Your task to perform on an android device: Open Google Maps and go to "Timeline" Image 0: 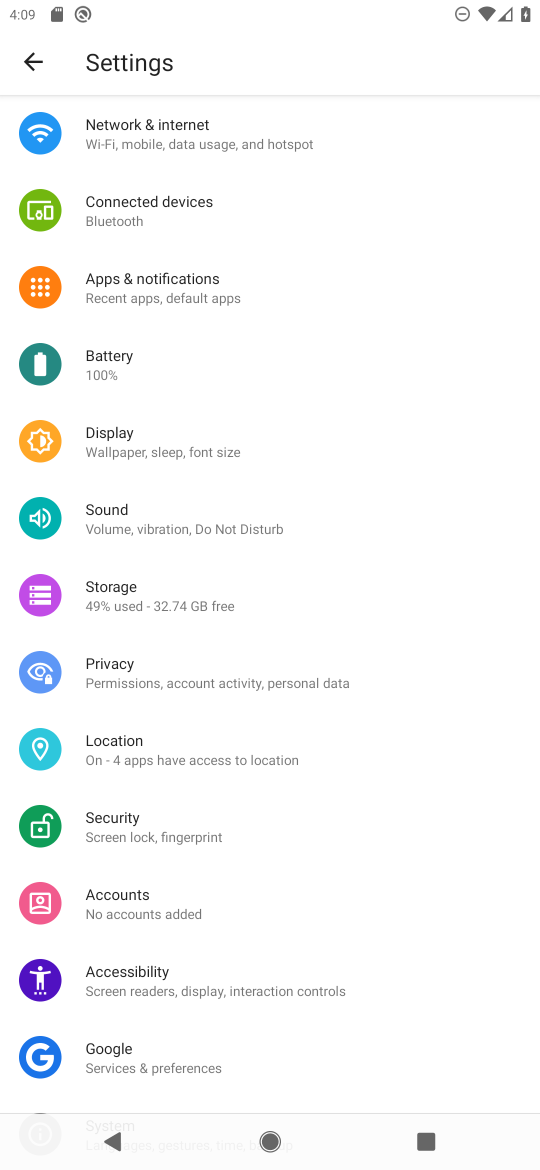
Step 0: press home button
Your task to perform on an android device: Open Google Maps and go to "Timeline" Image 1: 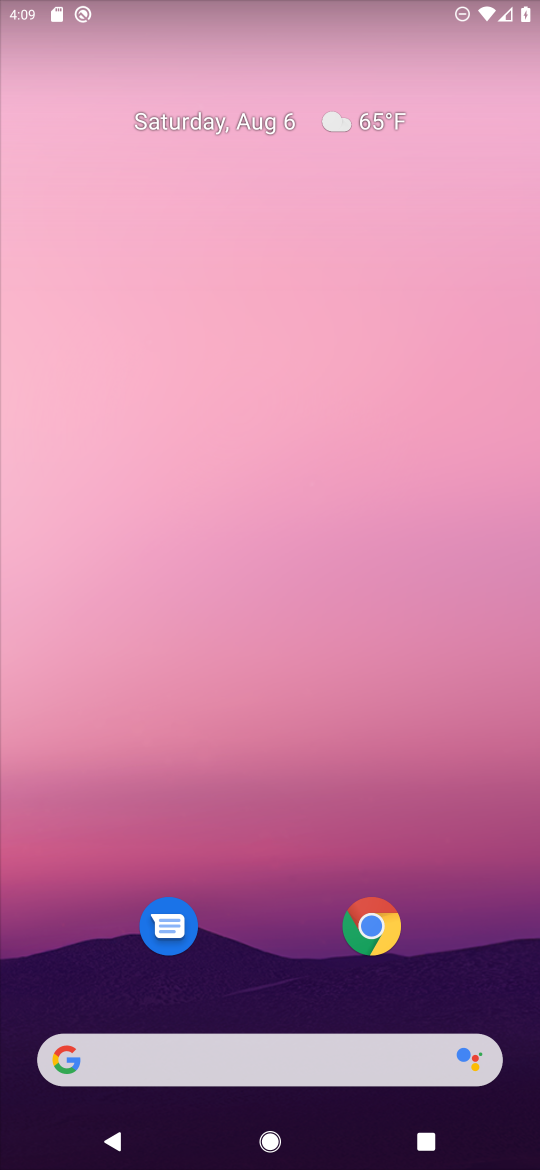
Step 1: drag from (249, 924) to (249, 338)
Your task to perform on an android device: Open Google Maps and go to "Timeline" Image 2: 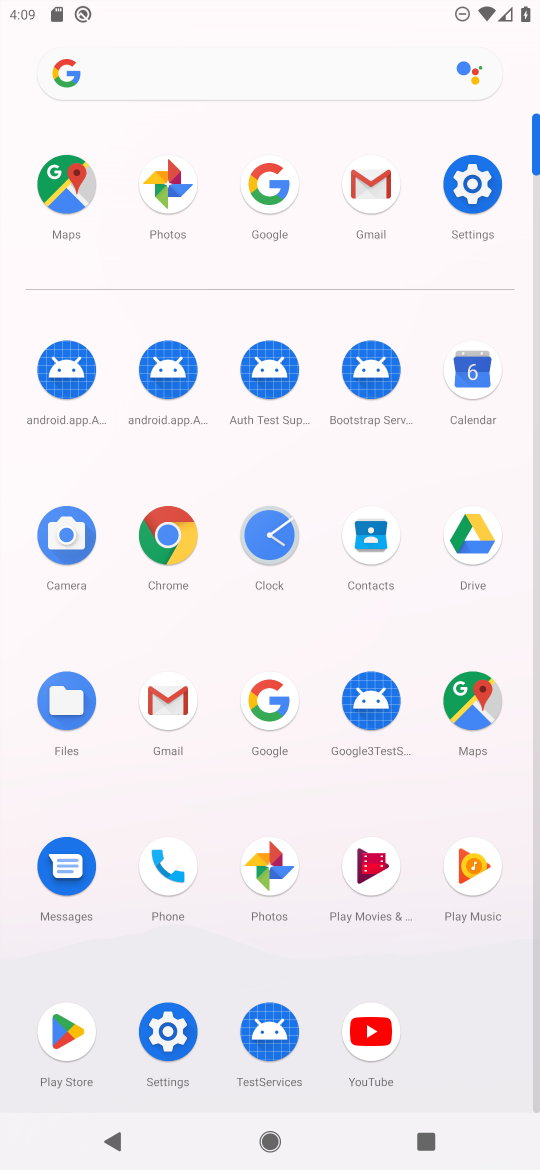
Step 2: click (483, 709)
Your task to perform on an android device: Open Google Maps and go to "Timeline" Image 3: 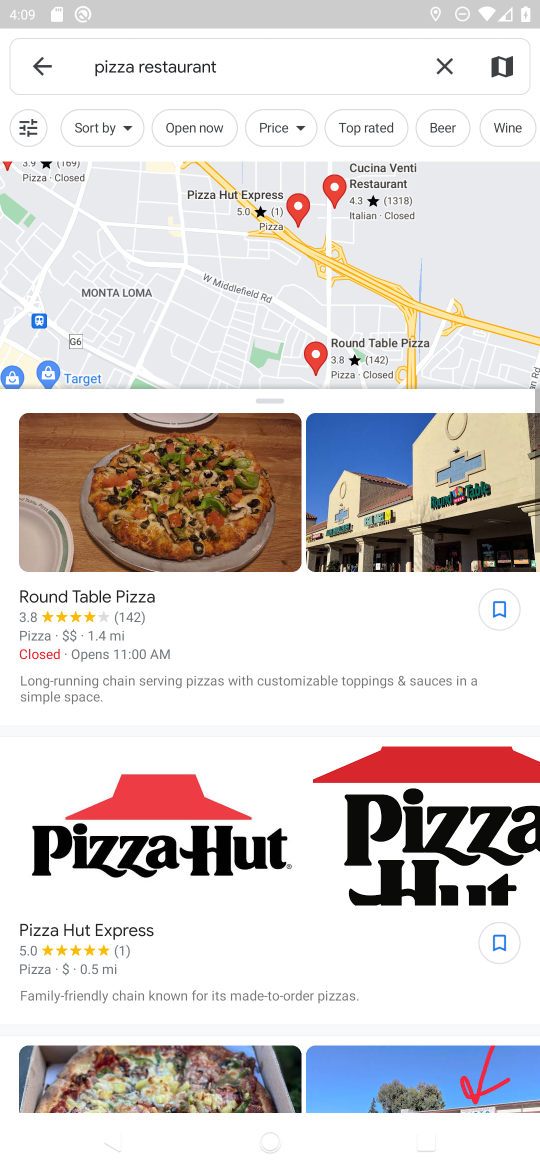
Step 3: click (37, 65)
Your task to perform on an android device: Open Google Maps and go to "Timeline" Image 4: 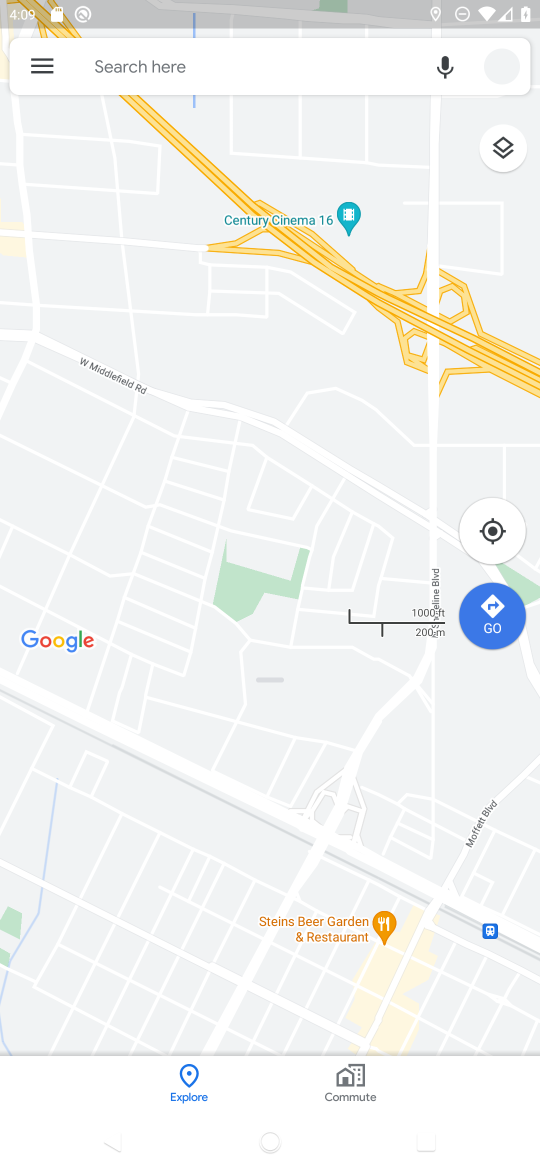
Step 4: click (37, 65)
Your task to perform on an android device: Open Google Maps and go to "Timeline" Image 5: 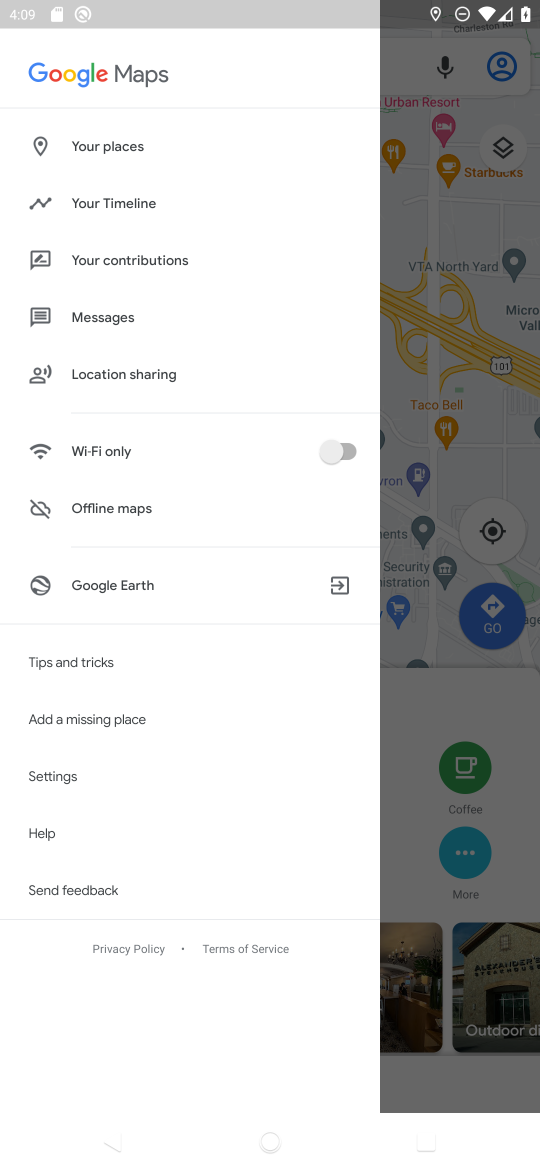
Step 5: click (83, 207)
Your task to perform on an android device: Open Google Maps and go to "Timeline" Image 6: 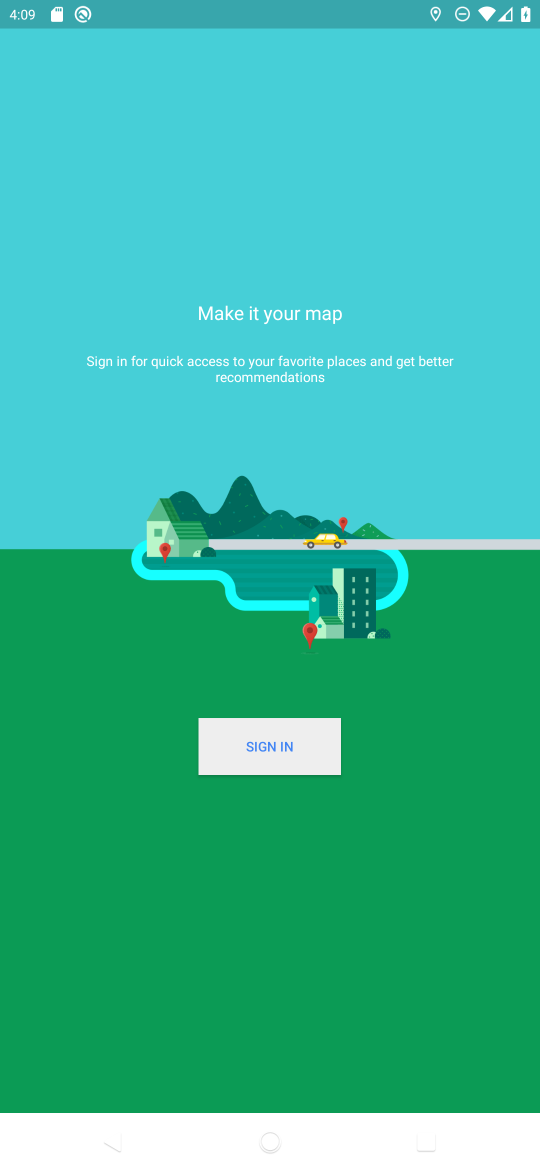
Step 6: task complete